Your task to perform on an android device: toggle priority inbox in the gmail app Image 0: 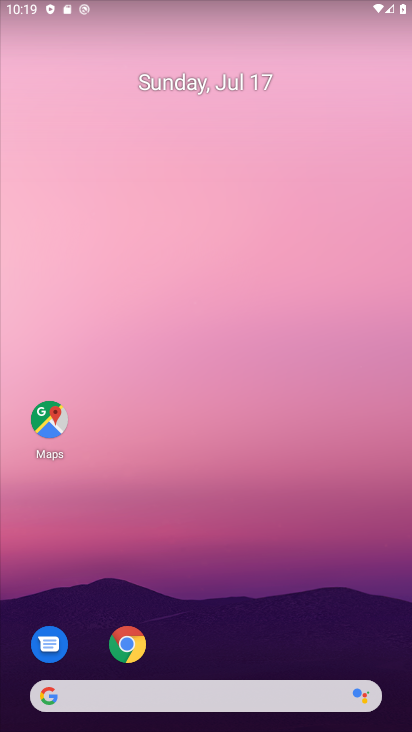
Step 0: drag from (300, 584) to (316, 71)
Your task to perform on an android device: toggle priority inbox in the gmail app Image 1: 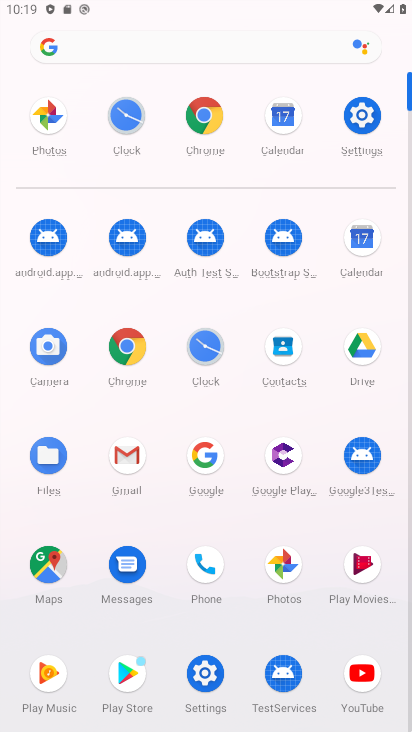
Step 1: click (121, 468)
Your task to perform on an android device: toggle priority inbox in the gmail app Image 2: 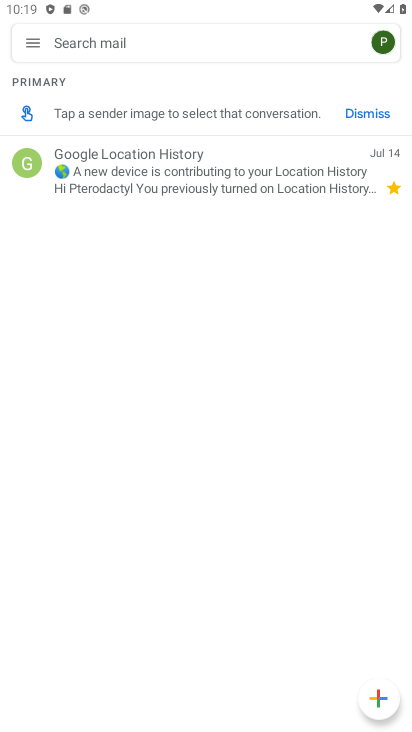
Step 2: click (32, 36)
Your task to perform on an android device: toggle priority inbox in the gmail app Image 3: 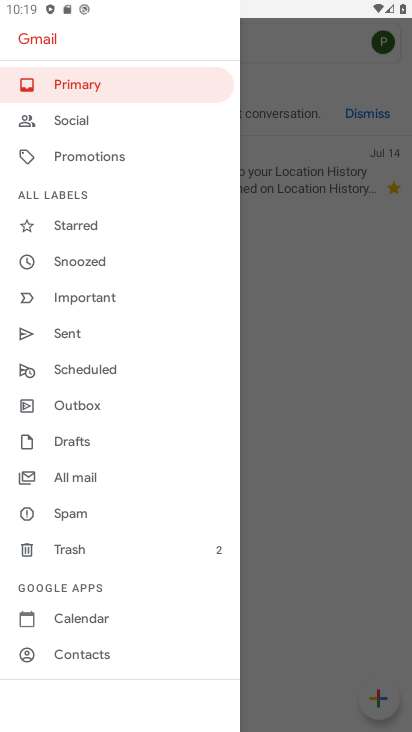
Step 3: drag from (150, 657) to (131, 88)
Your task to perform on an android device: toggle priority inbox in the gmail app Image 4: 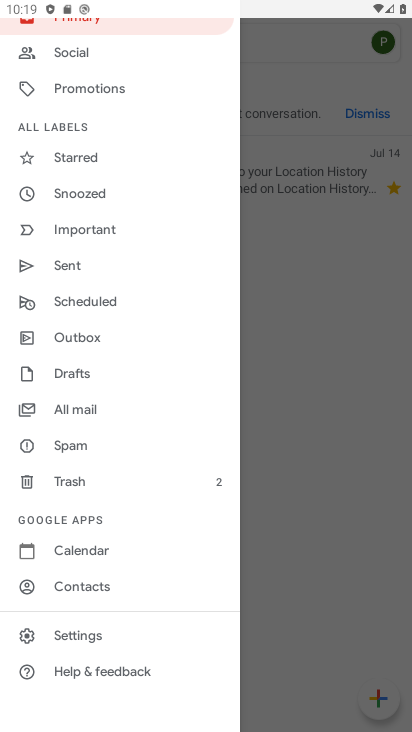
Step 4: click (79, 633)
Your task to perform on an android device: toggle priority inbox in the gmail app Image 5: 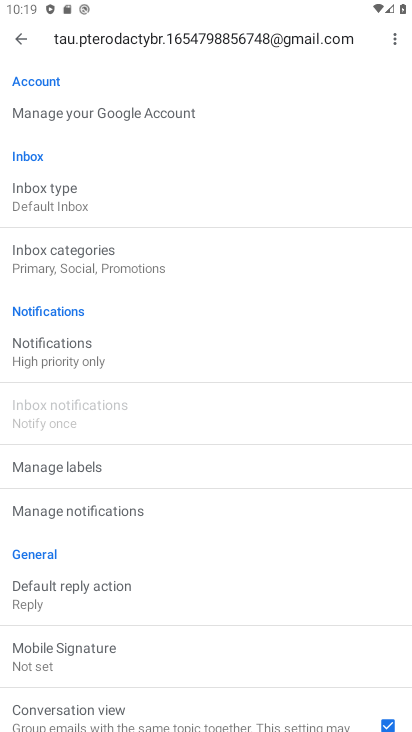
Step 5: click (51, 196)
Your task to perform on an android device: toggle priority inbox in the gmail app Image 6: 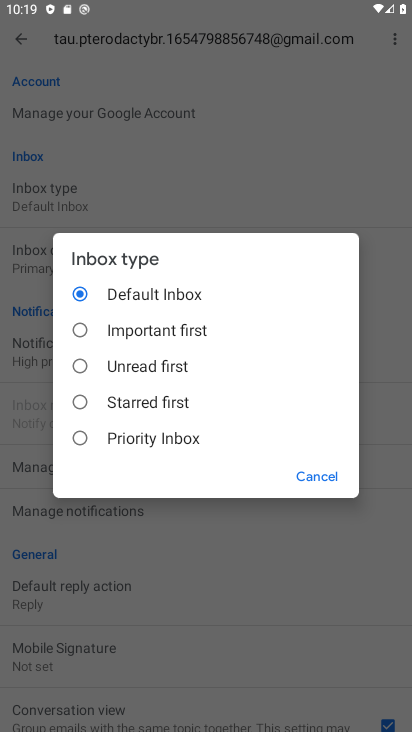
Step 6: click (133, 445)
Your task to perform on an android device: toggle priority inbox in the gmail app Image 7: 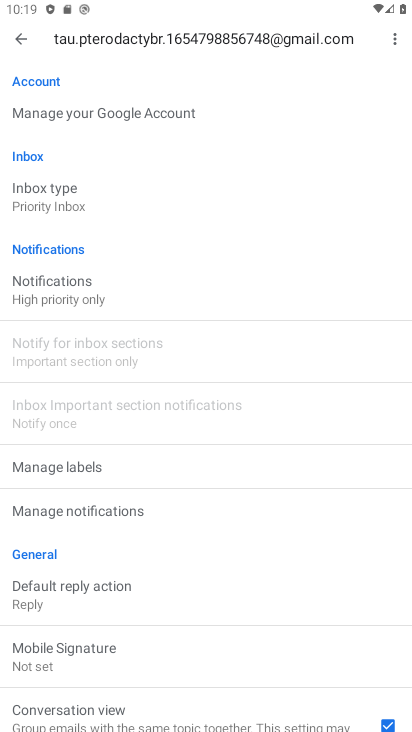
Step 7: task complete